Your task to perform on an android device: Is it going to rain tomorrow? Image 0: 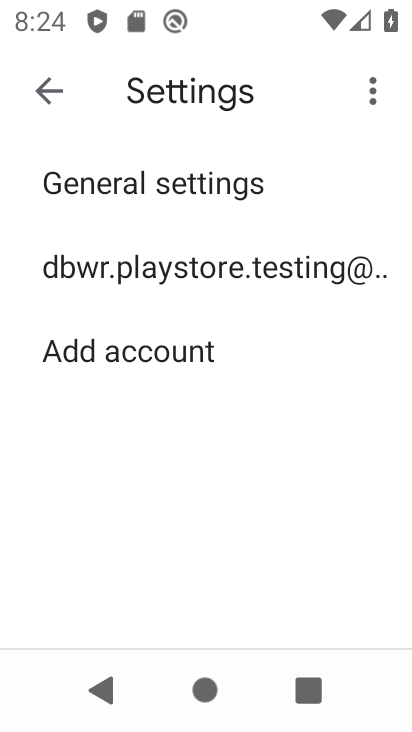
Step 0: press home button
Your task to perform on an android device: Is it going to rain tomorrow? Image 1: 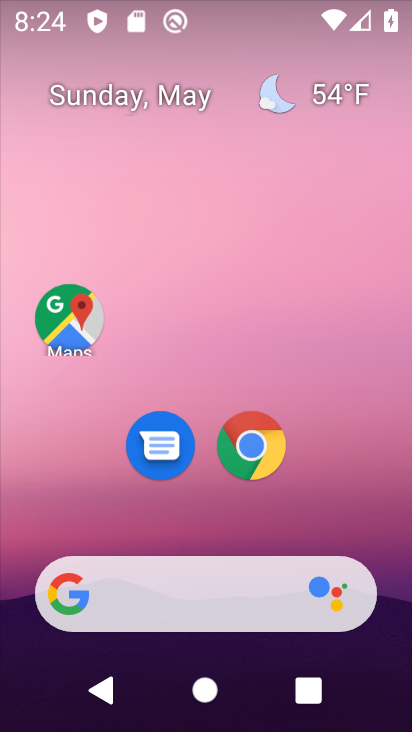
Step 1: click (272, 453)
Your task to perform on an android device: Is it going to rain tomorrow? Image 2: 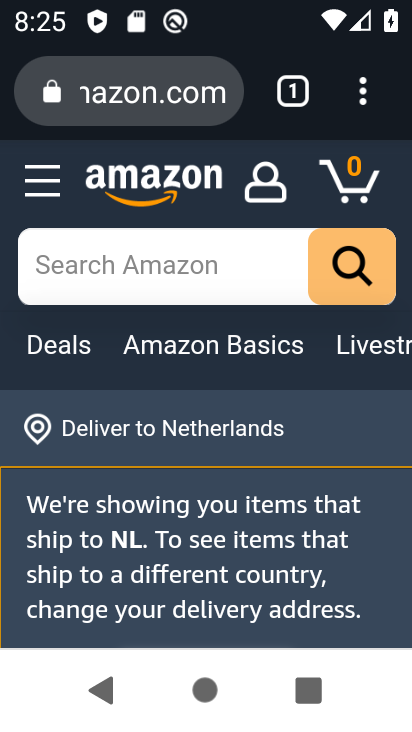
Step 2: click (175, 83)
Your task to perform on an android device: Is it going to rain tomorrow? Image 3: 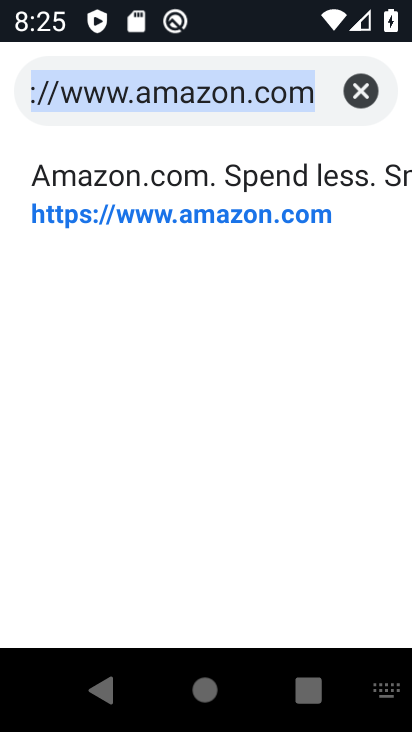
Step 3: type "Is it going to rain tomorrow?"
Your task to perform on an android device: Is it going to rain tomorrow? Image 4: 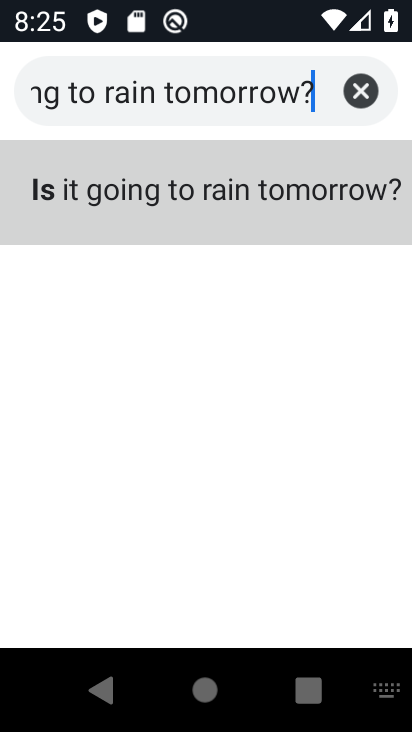
Step 4: click (237, 187)
Your task to perform on an android device: Is it going to rain tomorrow? Image 5: 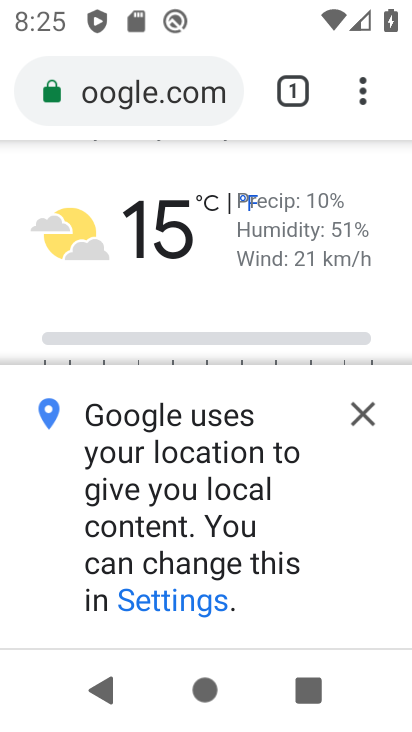
Step 5: click (363, 409)
Your task to perform on an android device: Is it going to rain tomorrow? Image 6: 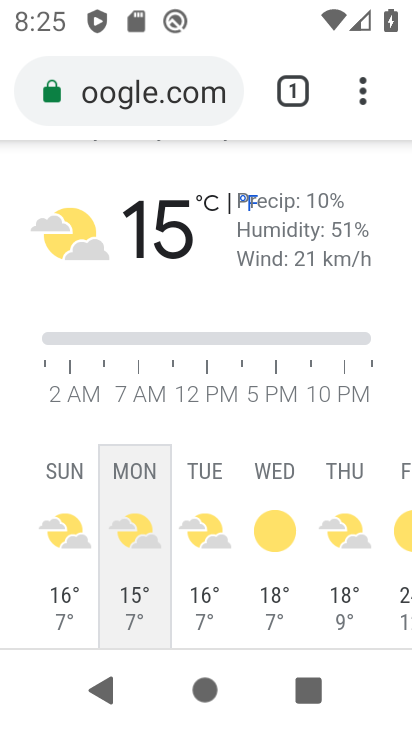
Step 6: drag from (333, 529) to (276, 246)
Your task to perform on an android device: Is it going to rain tomorrow? Image 7: 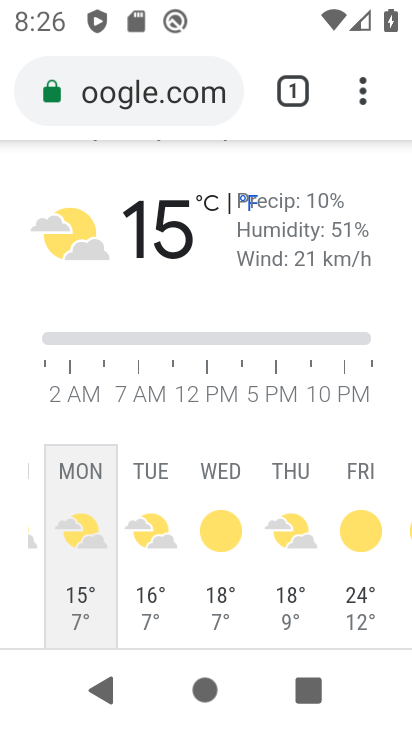
Step 7: drag from (272, 462) to (260, 200)
Your task to perform on an android device: Is it going to rain tomorrow? Image 8: 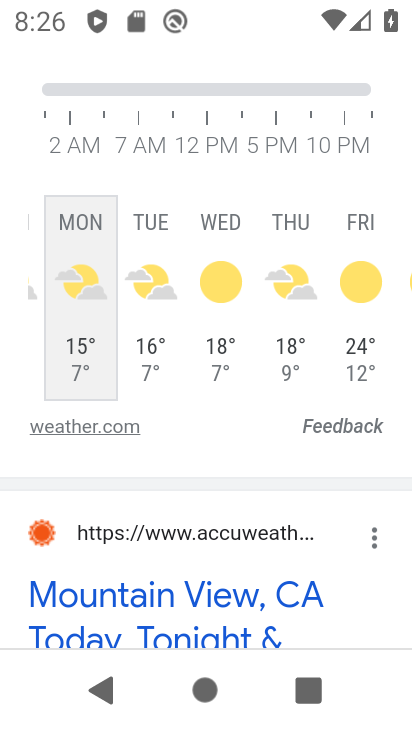
Step 8: click (156, 221)
Your task to perform on an android device: Is it going to rain tomorrow? Image 9: 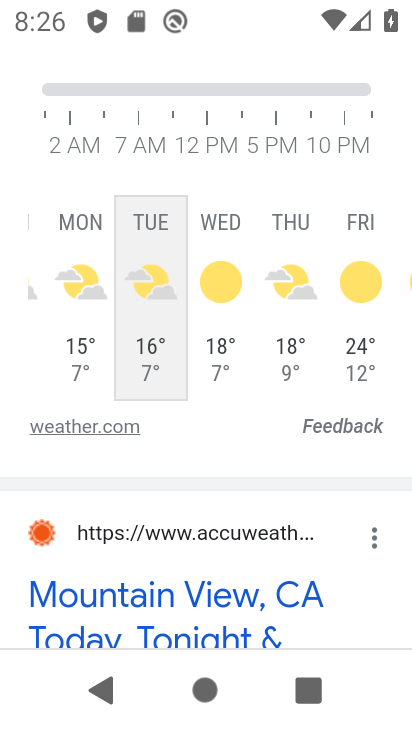
Step 9: task complete